Your task to perform on an android device: Go to CNN.com Image 0: 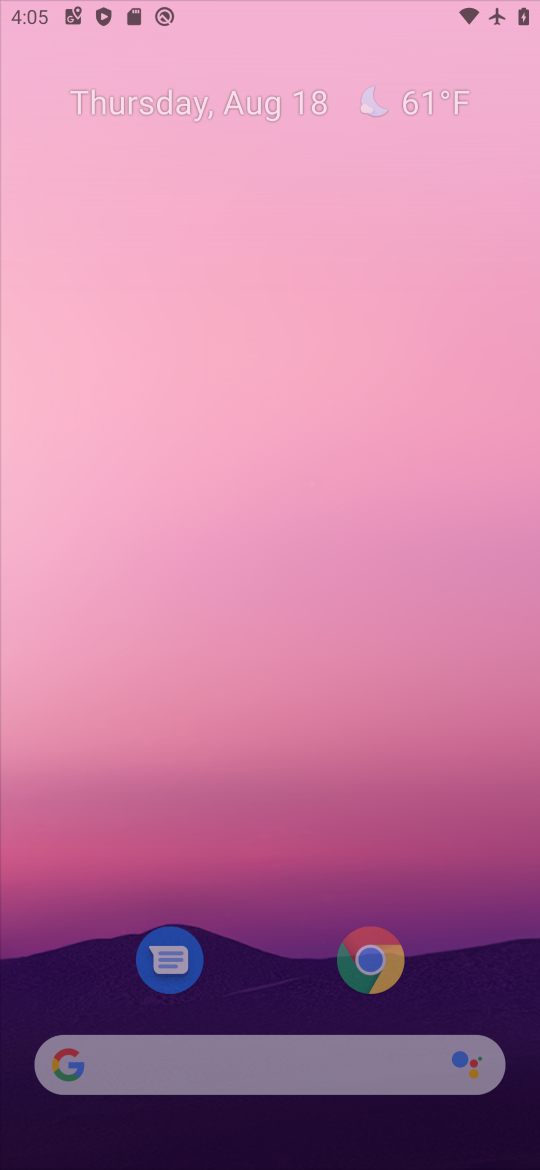
Step 0: click (463, 127)
Your task to perform on an android device: Go to CNN.com Image 1: 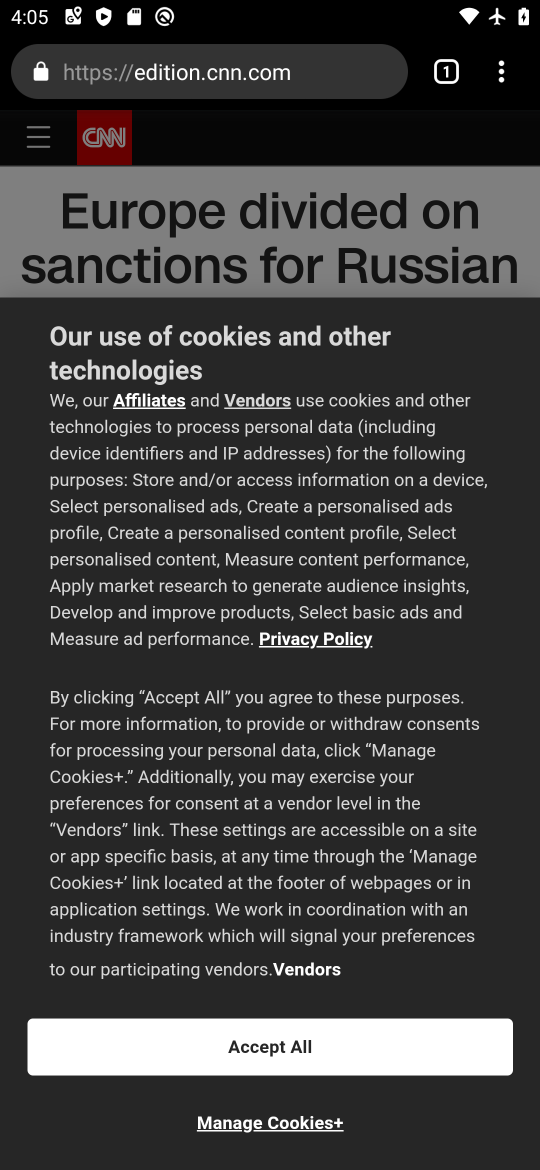
Step 1: task complete